Your task to perform on an android device: allow cookies in the chrome app Image 0: 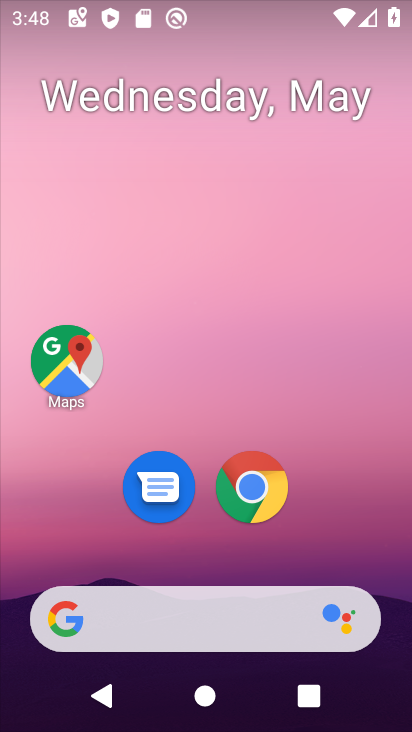
Step 0: drag from (343, 522) to (300, 41)
Your task to perform on an android device: allow cookies in the chrome app Image 1: 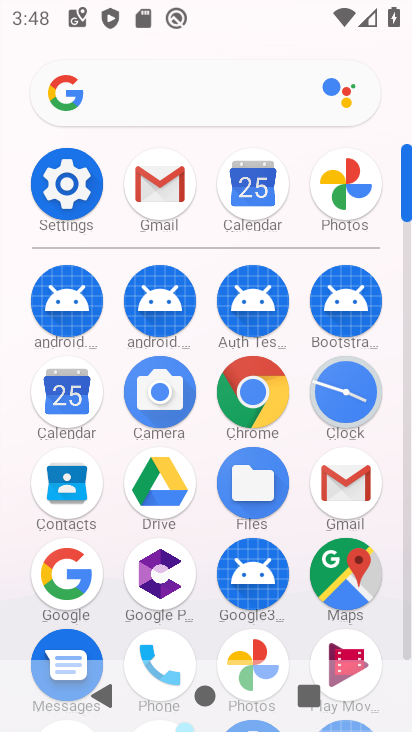
Step 1: drag from (1, 561) to (0, 247)
Your task to perform on an android device: allow cookies in the chrome app Image 2: 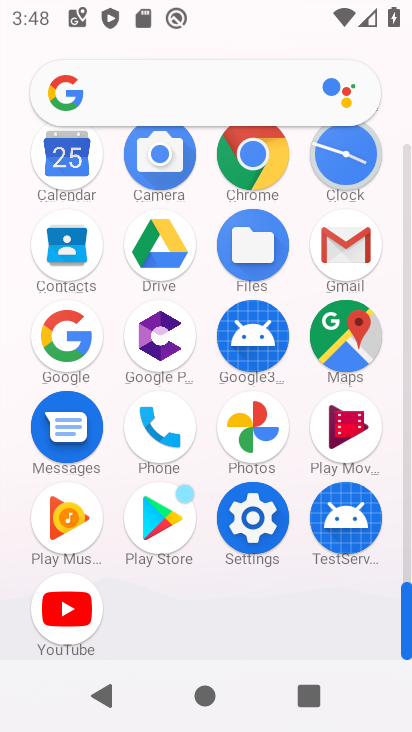
Step 2: click (255, 154)
Your task to perform on an android device: allow cookies in the chrome app Image 3: 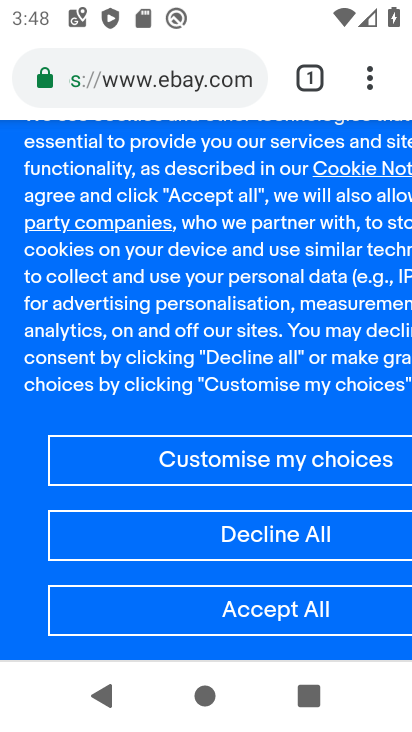
Step 3: drag from (368, 84) to (75, 536)
Your task to perform on an android device: allow cookies in the chrome app Image 4: 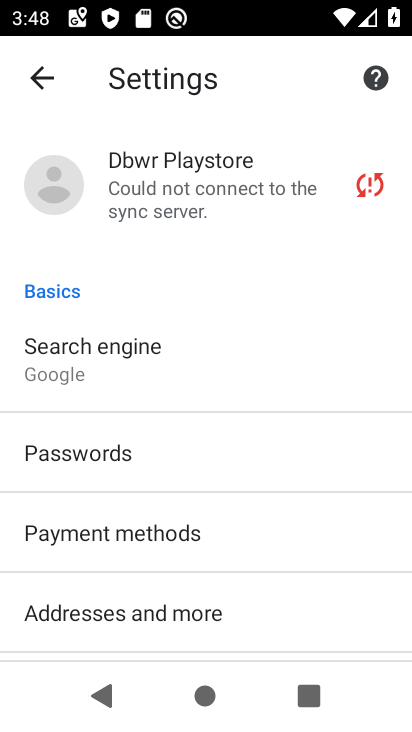
Step 4: drag from (225, 582) to (226, 197)
Your task to perform on an android device: allow cookies in the chrome app Image 5: 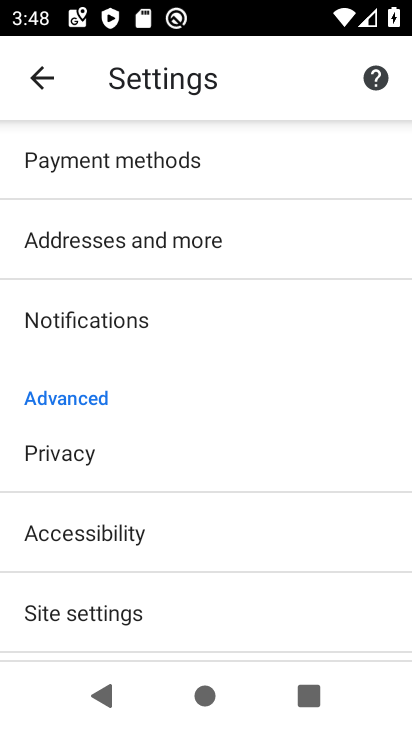
Step 5: drag from (220, 563) to (233, 195)
Your task to perform on an android device: allow cookies in the chrome app Image 6: 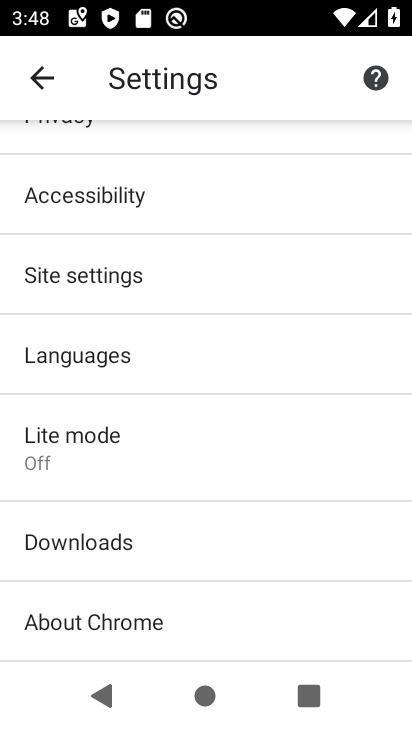
Step 6: click (142, 283)
Your task to perform on an android device: allow cookies in the chrome app Image 7: 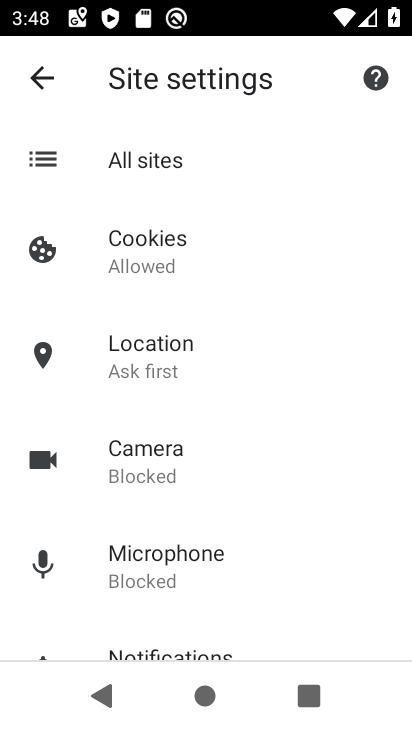
Step 7: click (155, 256)
Your task to perform on an android device: allow cookies in the chrome app Image 8: 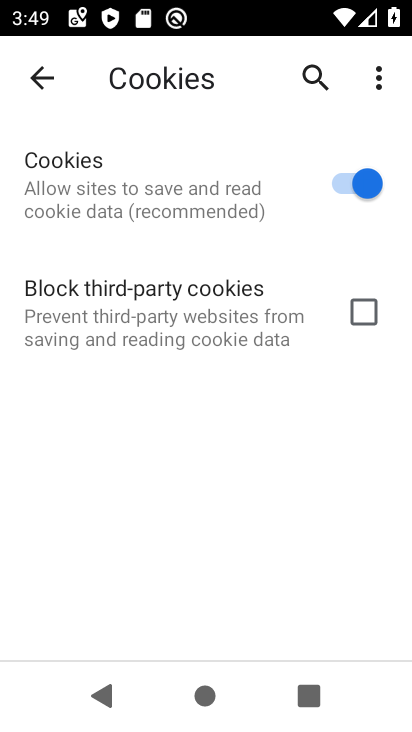
Step 8: task complete